Your task to perform on an android device: Add "rayovac triple a" to the cart on newegg, then select checkout. Image 0: 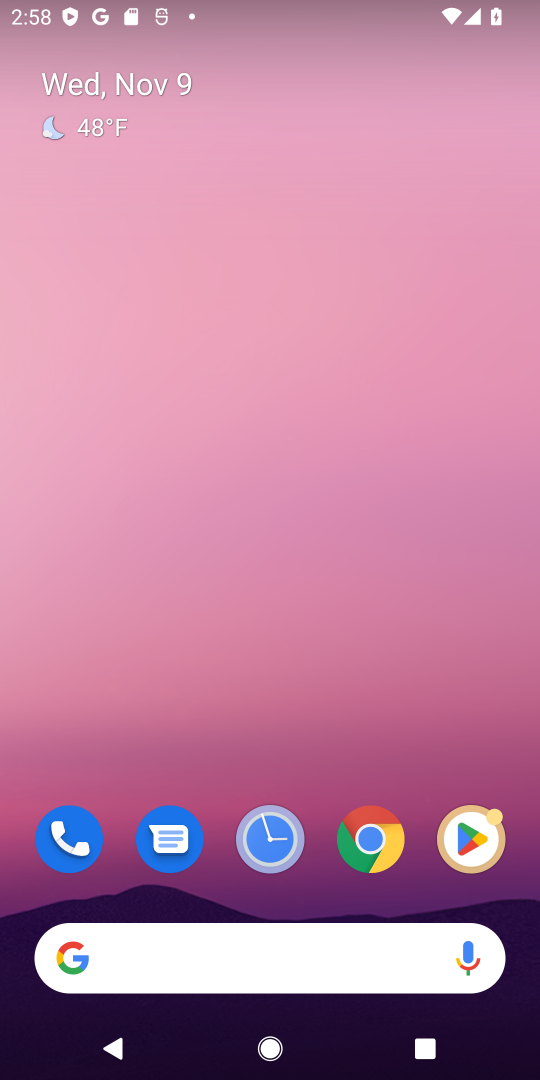
Step 0: drag from (324, 851) to (359, 50)
Your task to perform on an android device: Add "rayovac triple a" to the cart on newegg, then select checkout. Image 1: 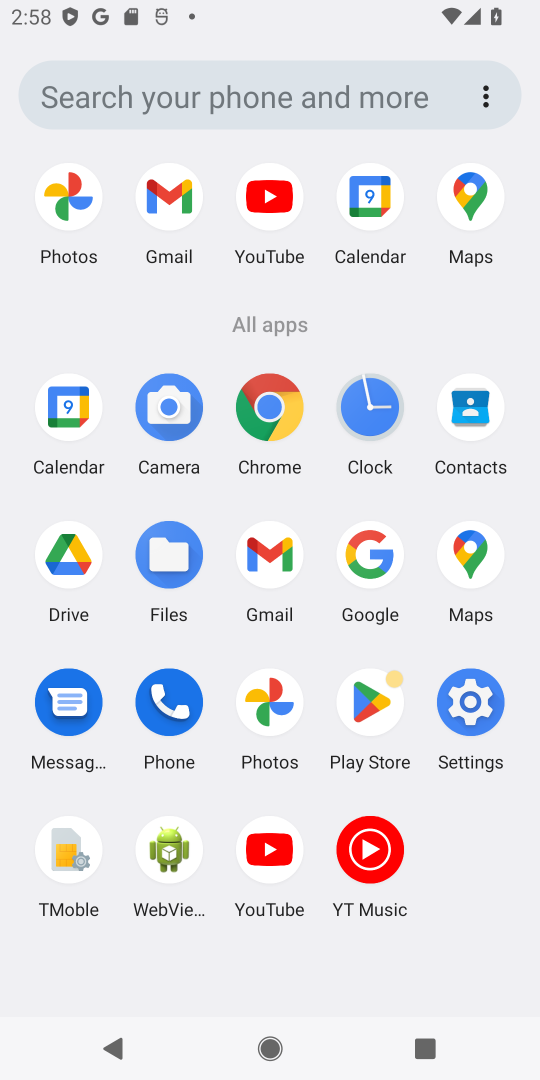
Step 1: click (272, 416)
Your task to perform on an android device: Add "rayovac triple a" to the cart on newegg, then select checkout. Image 2: 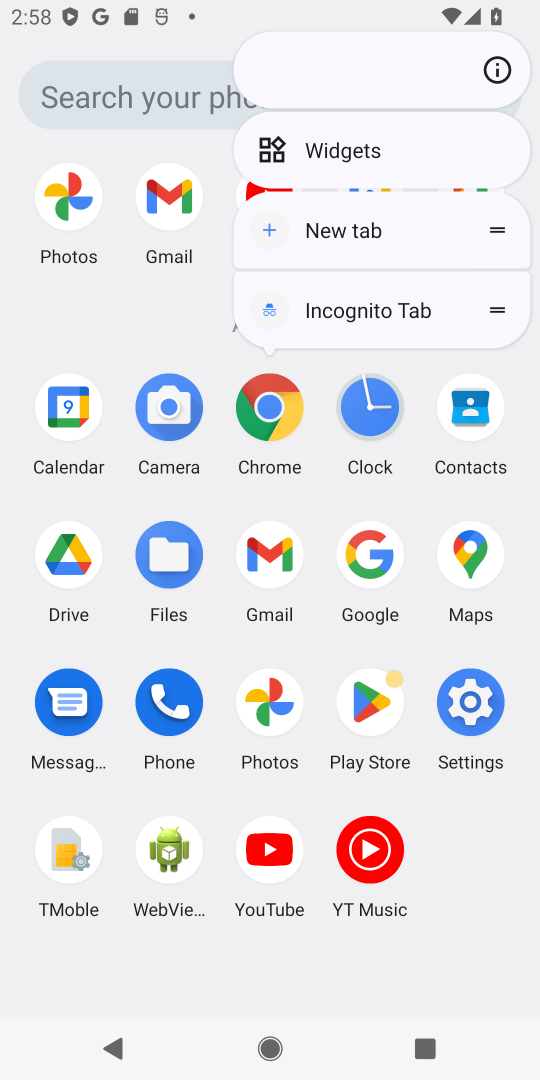
Step 2: click (272, 416)
Your task to perform on an android device: Add "rayovac triple a" to the cart on newegg, then select checkout. Image 3: 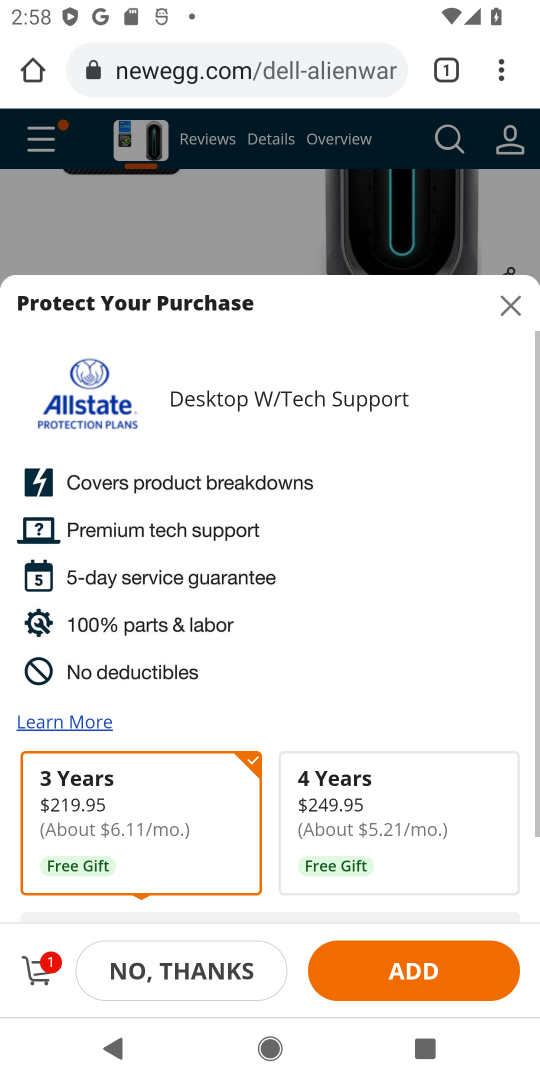
Step 3: click (437, 138)
Your task to perform on an android device: Add "rayovac triple a" to the cart on newegg, then select checkout. Image 4: 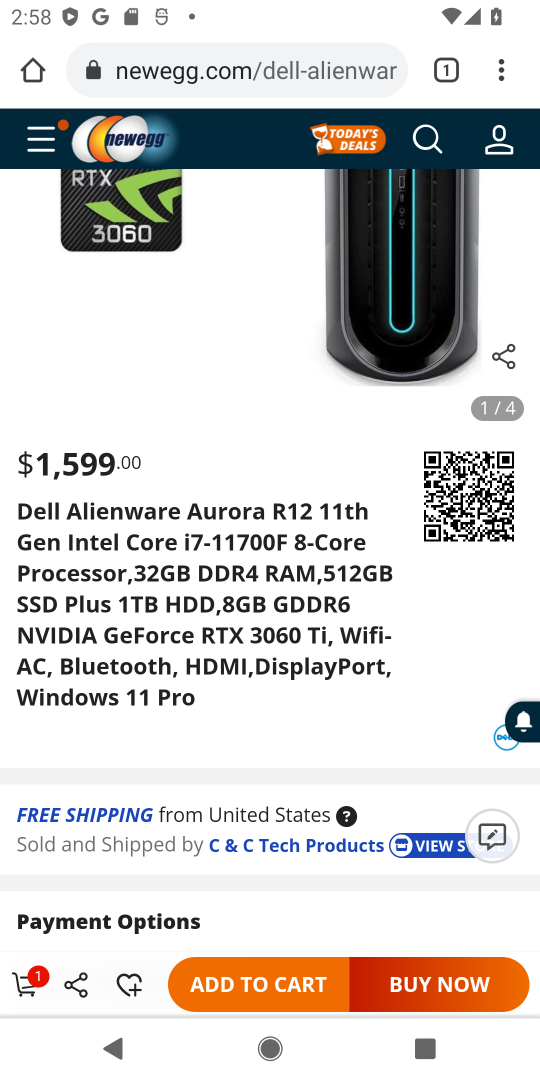
Step 4: click (437, 138)
Your task to perform on an android device: Add "rayovac triple a" to the cart on newegg, then select checkout. Image 5: 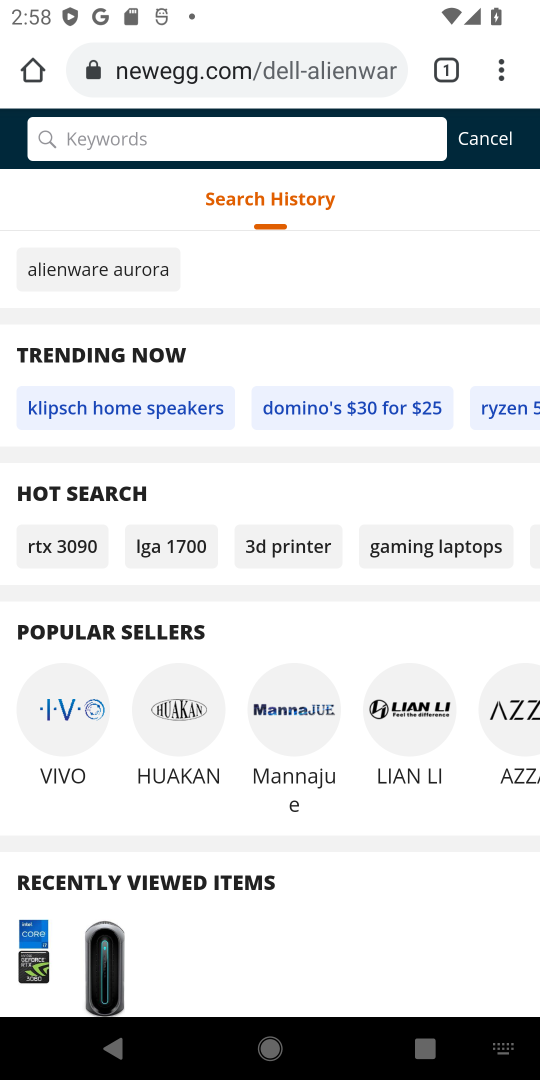
Step 5: type "rayovac triple a"
Your task to perform on an android device: Add "rayovac triple a" to the cart on newegg, then select checkout. Image 6: 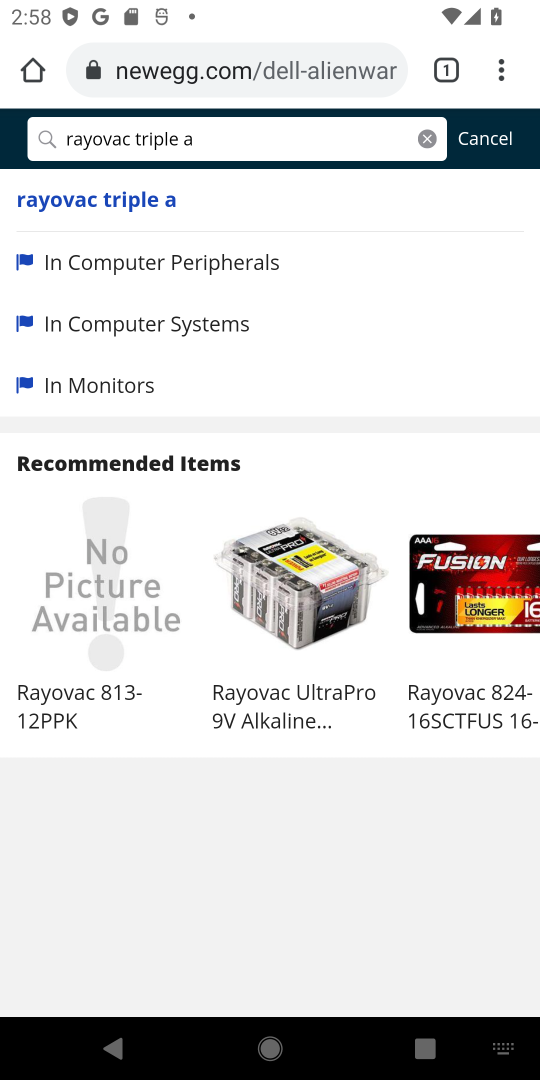
Step 6: press enter
Your task to perform on an android device: Add "rayovac triple a" to the cart on newegg, then select checkout. Image 7: 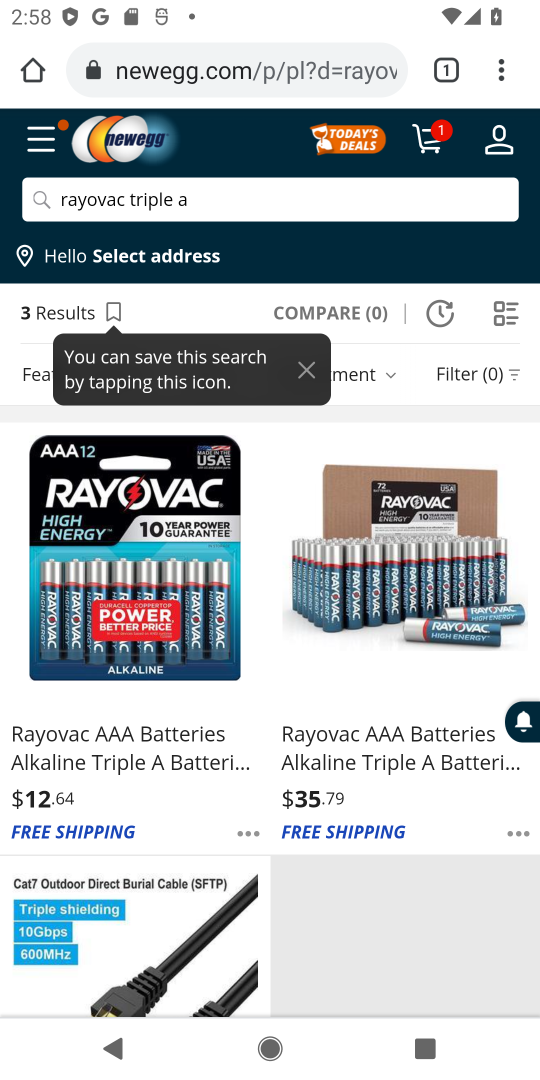
Step 7: click (107, 585)
Your task to perform on an android device: Add "rayovac triple a" to the cart on newegg, then select checkout. Image 8: 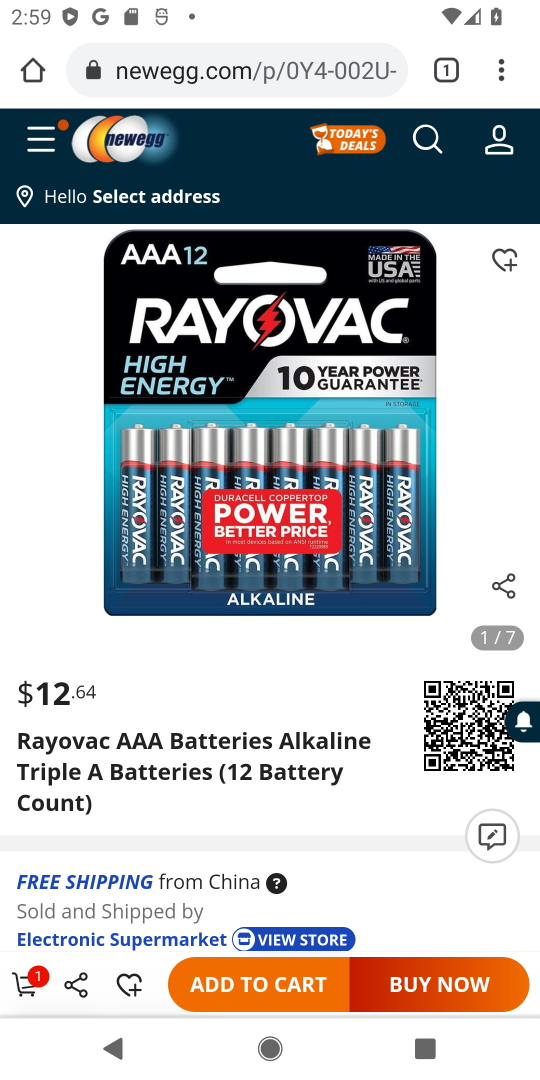
Step 8: click (265, 978)
Your task to perform on an android device: Add "rayovac triple a" to the cart on newegg, then select checkout. Image 9: 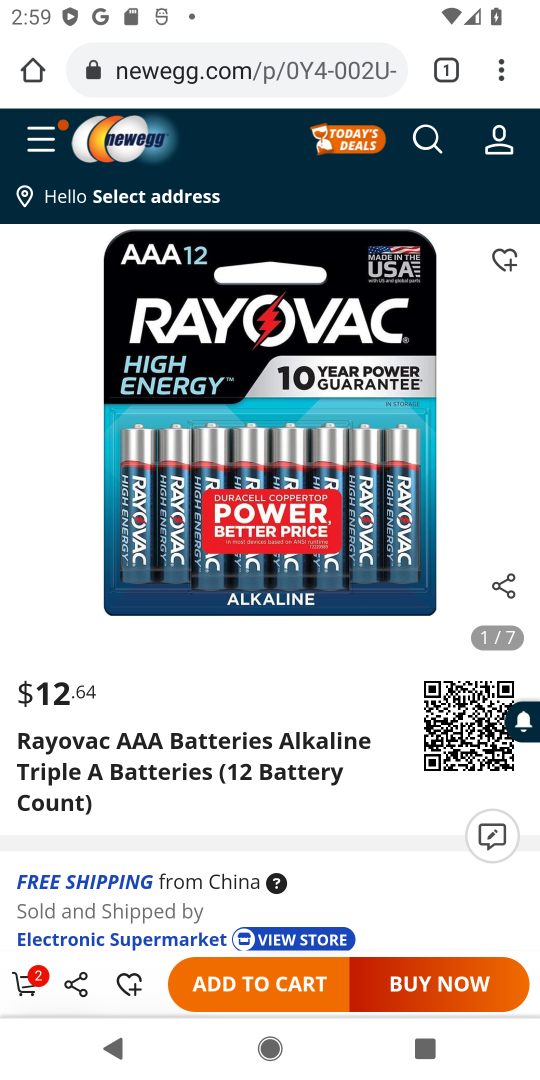
Step 9: click (36, 978)
Your task to perform on an android device: Add "rayovac triple a" to the cart on newegg, then select checkout. Image 10: 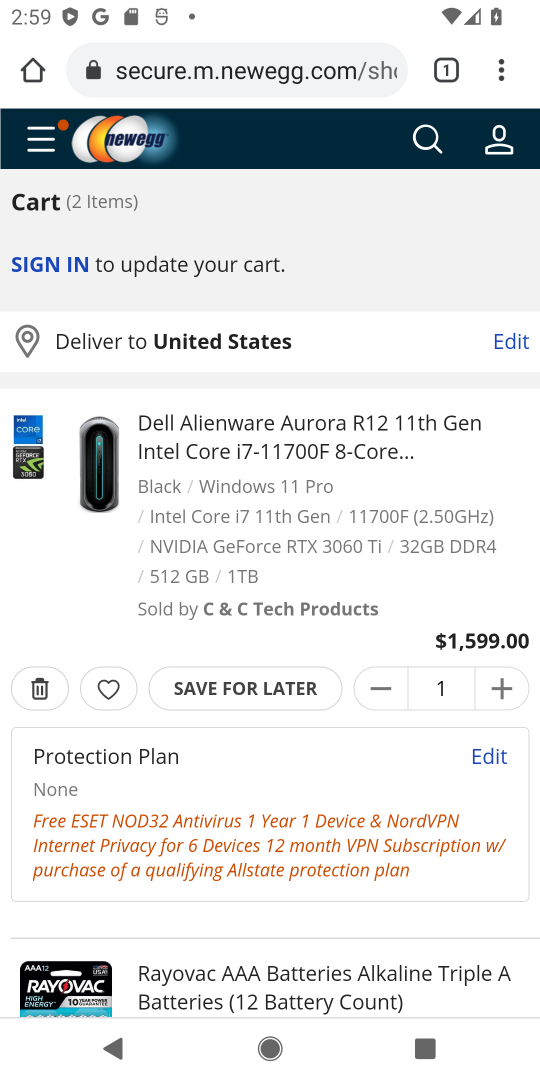
Step 10: click (308, 924)
Your task to perform on an android device: Add "rayovac triple a" to the cart on newegg, then select checkout. Image 11: 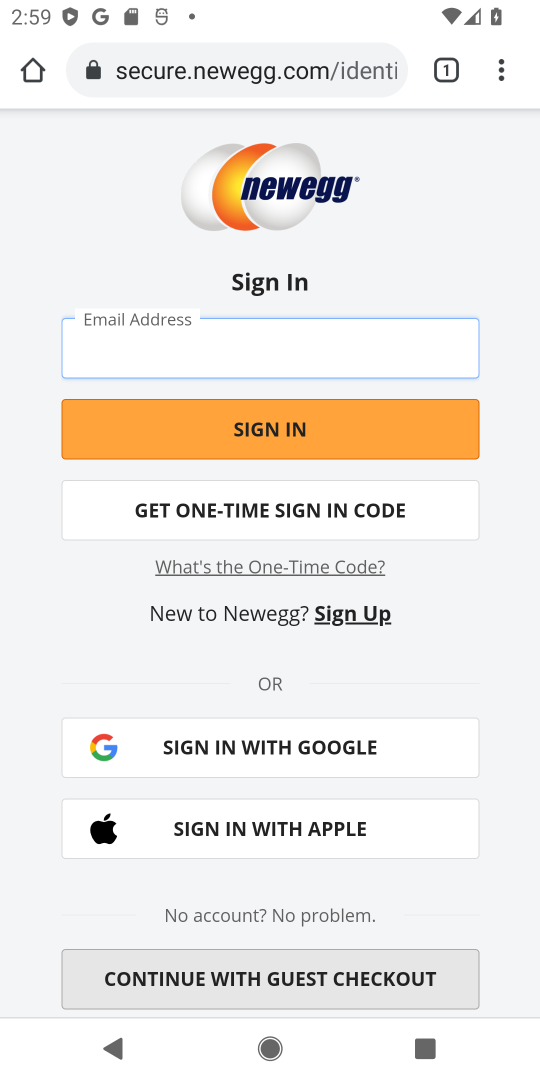
Step 11: task complete